Your task to perform on an android device: Turn off the flashlight Image 0: 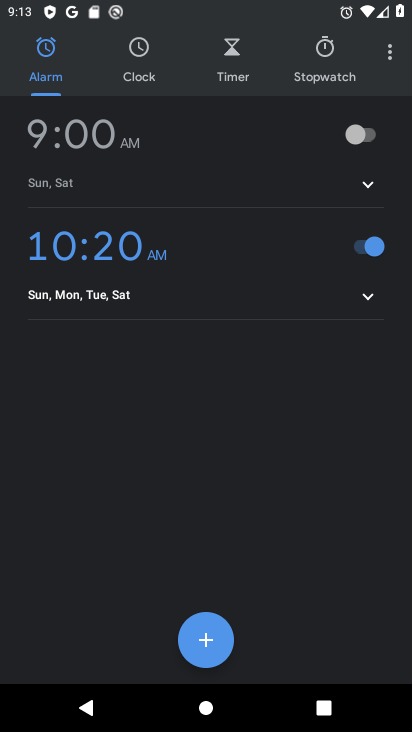
Step 0: press home button
Your task to perform on an android device: Turn off the flashlight Image 1: 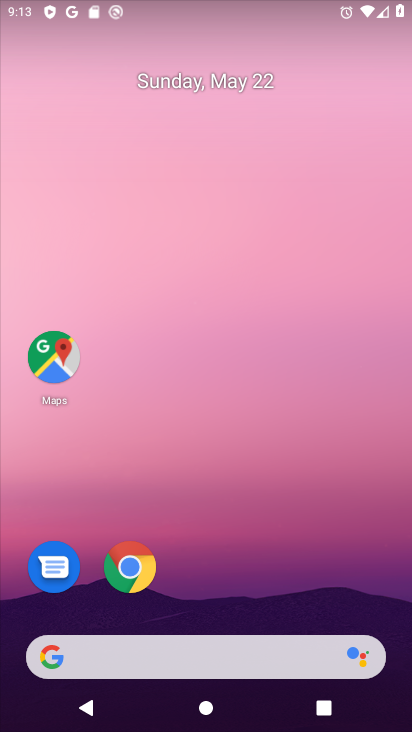
Step 1: drag from (197, 600) to (271, 11)
Your task to perform on an android device: Turn off the flashlight Image 2: 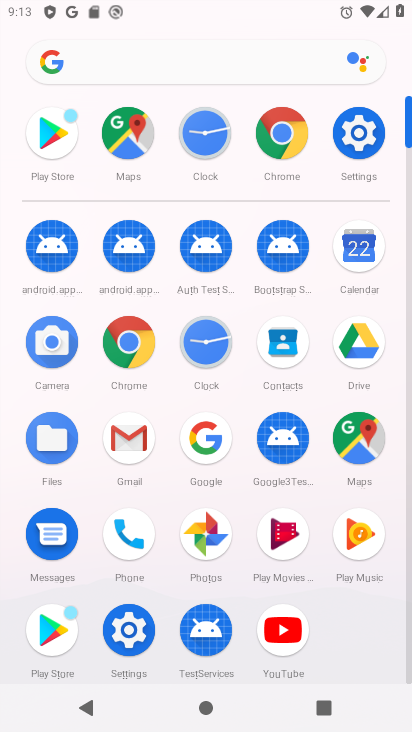
Step 2: click (359, 131)
Your task to perform on an android device: Turn off the flashlight Image 3: 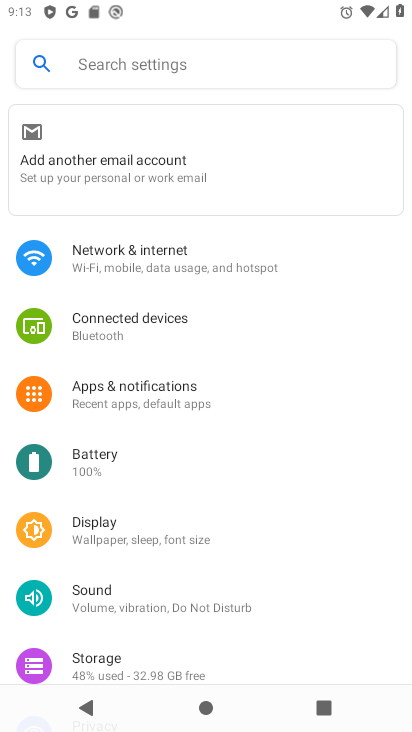
Step 3: click (243, 57)
Your task to perform on an android device: Turn off the flashlight Image 4: 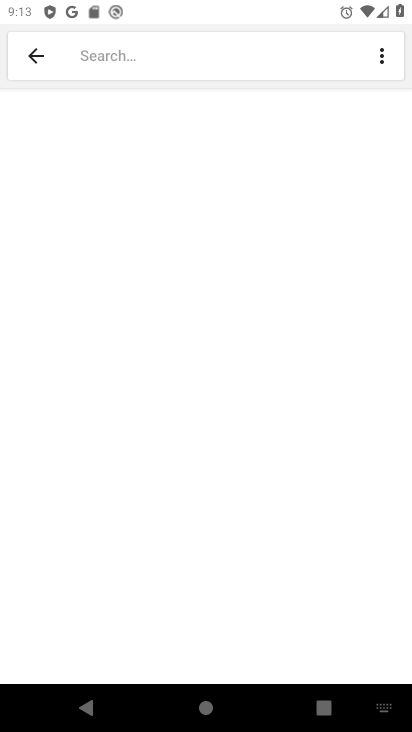
Step 4: type "flashlight"
Your task to perform on an android device: Turn off the flashlight Image 5: 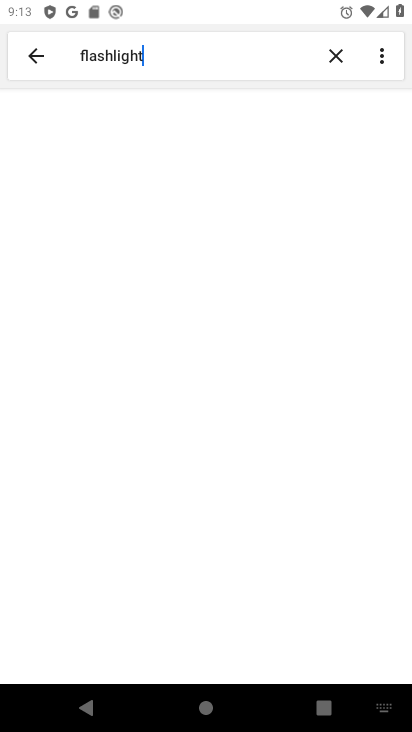
Step 5: click (122, 127)
Your task to perform on an android device: Turn off the flashlight Image 6: 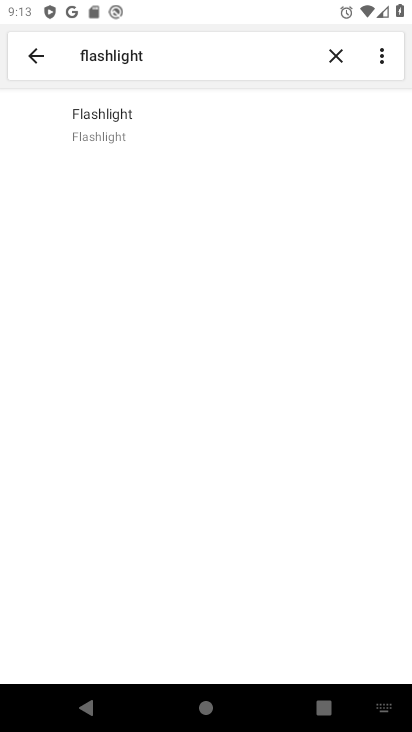
Step 6: click (114, 121)
Your task to perform on an android device: Turn off the flashlight Image 7: 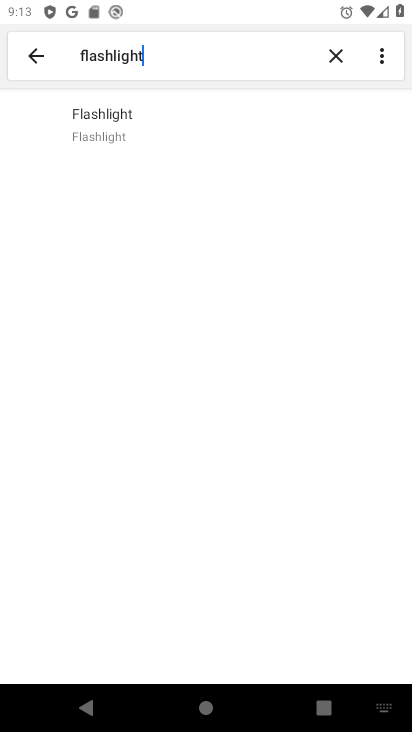
Step 7: click (117, 120)
Your task to perform on an android device: Turn off the flashlight Image 8: 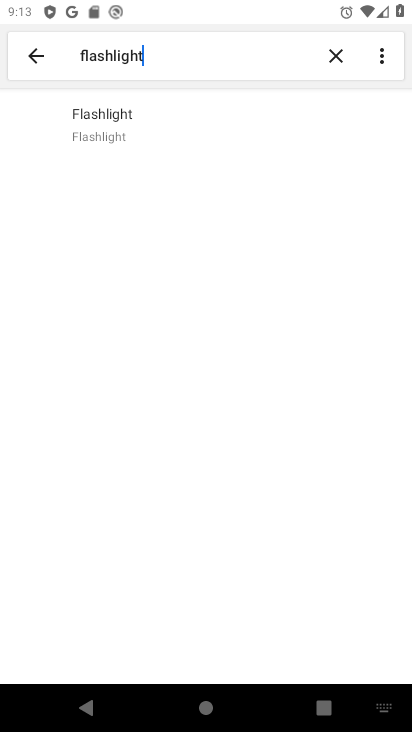
Step 8: task complete